Your task to perform on an android device: Search for seafood restaurants on Google Maps Image 0: 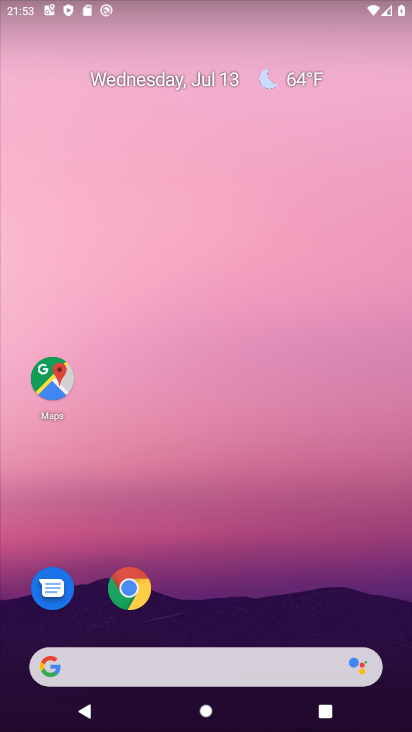
Step 0: click (44, 372)
Your task to perform on an android device: Search for seafood restaurants on Google Maps Image 1: 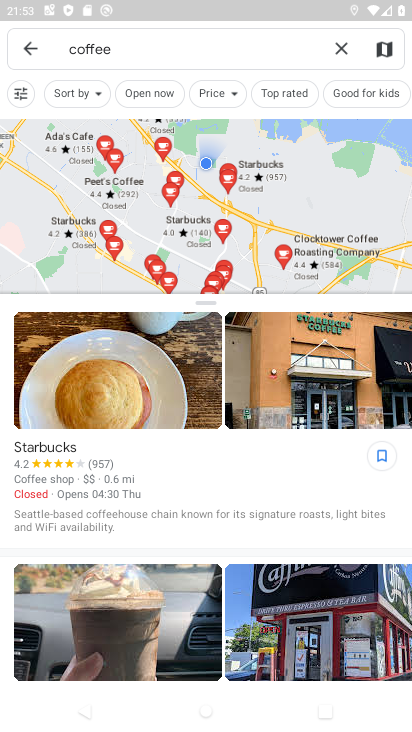
Step 1: click (341, 47)
Your task to perform on an android device: Search for seafood restaurants on Google Maps Image 2: 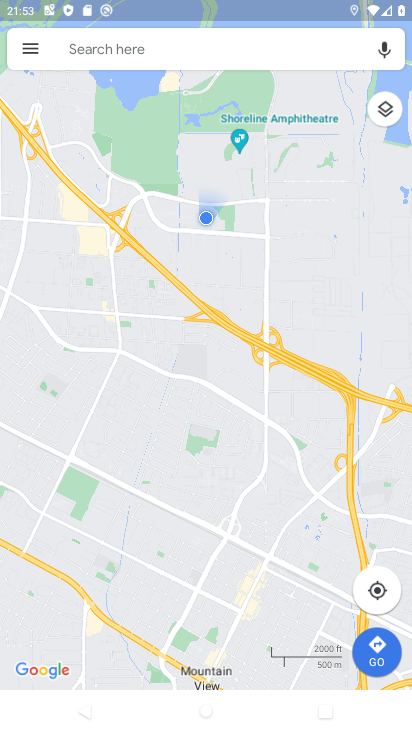
Step 2: click (164, 51)
Your task to perform on an android device: Search for seafood restaurants on Google Maps Image 3: 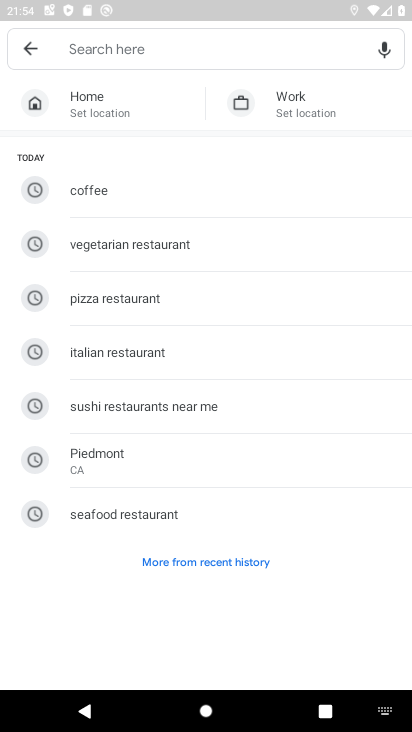
Step 3: click (200, 513)
Your task to perform on an android device: Search for seafood restaurants on Google Maps Image 4: 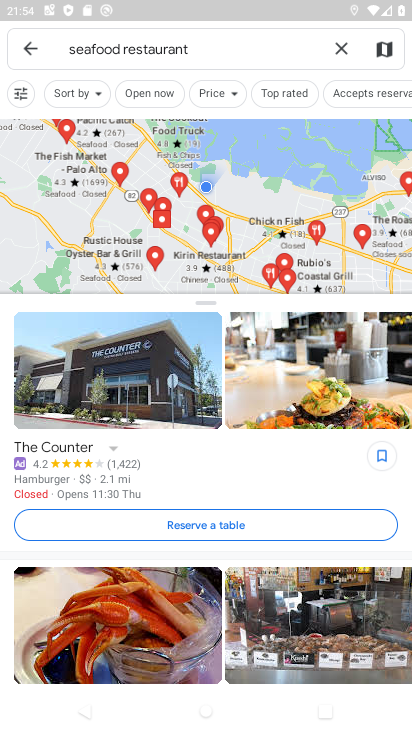
Step 4: task complete